Your task to perform on an android device: toggle airplane mode Image 0: 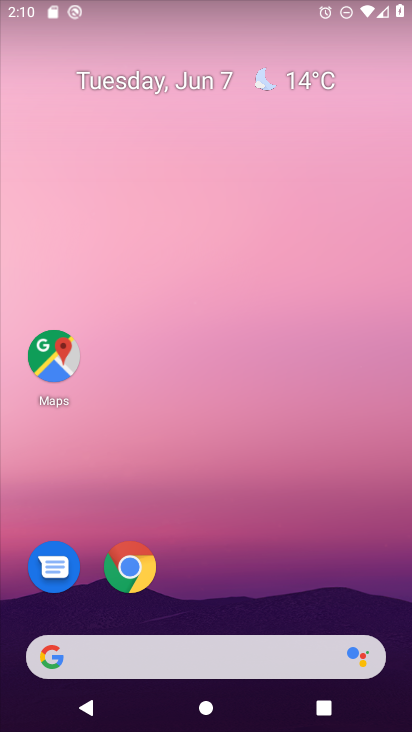
Step 0: drag from (320, 556) to (378, 31)
Your task to perform on an android device: toggle airplane mode Image 1: 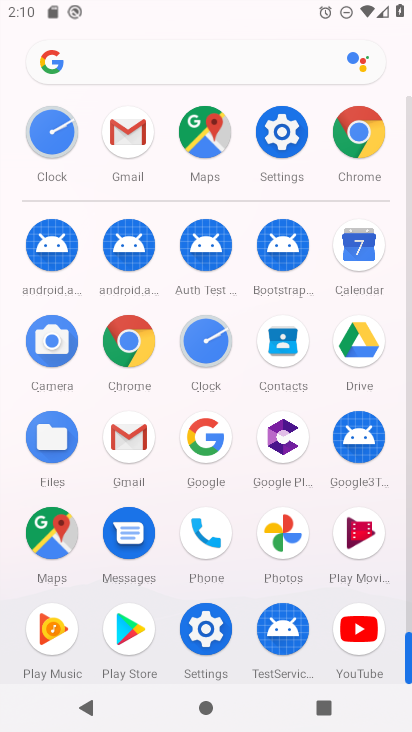
Step 1: click (269, 124)
Your task to perform on an android device: toggle airplane mode Image 2: 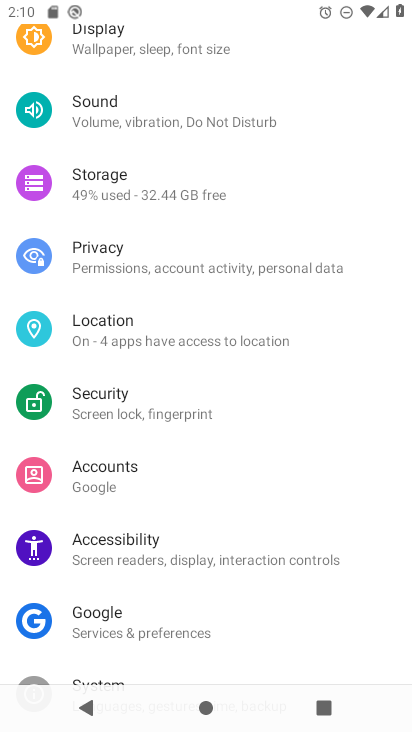
Step 2: drag from (277, 178) to (286, 682)
Your task to perform on an android device: toggle airplane mode Image 3: 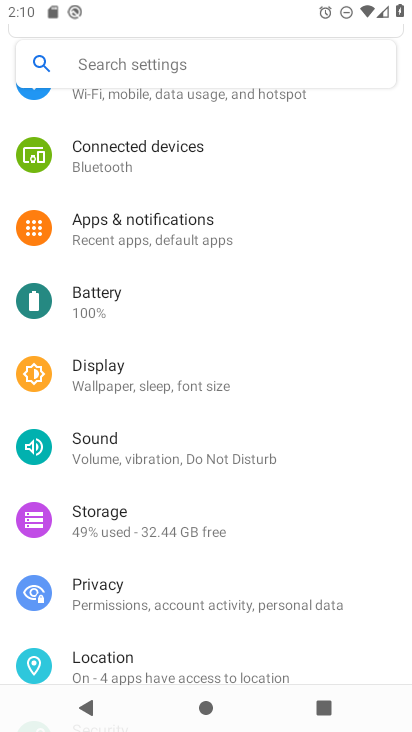
Step 3: drag from (252, 248) to (206, 654)
Your task to perform on an android device: toggle airplane mode Image 4: 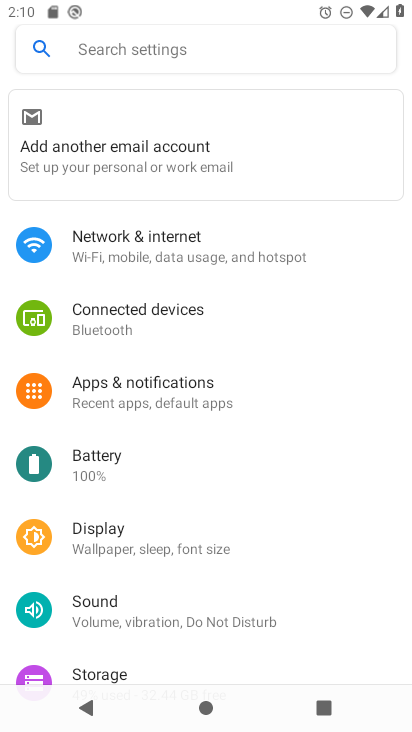
Step 4: drag from (300, 212) to (246, 466)
Your task to perform on an android device: toggle airplane mode Image 5: 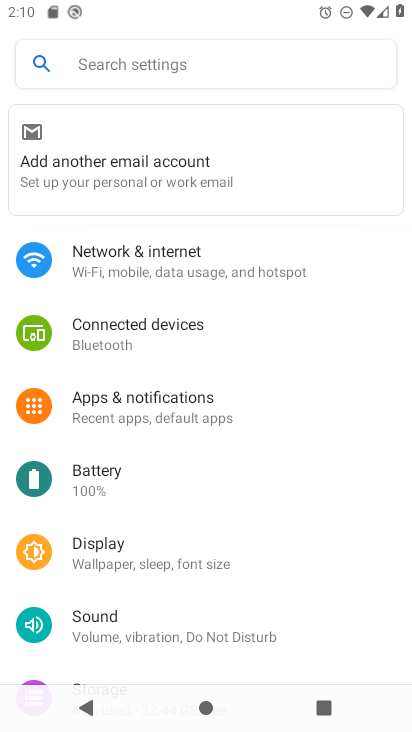
Step 5: click (154, 257)
Your task to perform on an android device: toggle airplane mode Image 6: 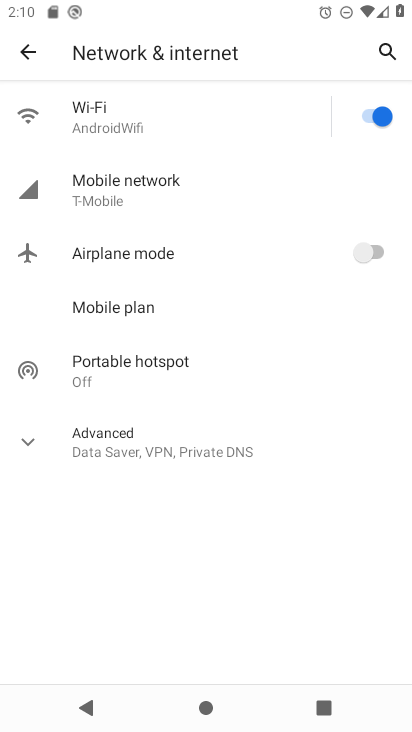
Step 6: click (153, 263)
Your task to perform on an android device: toggle airplane mode Image 7: 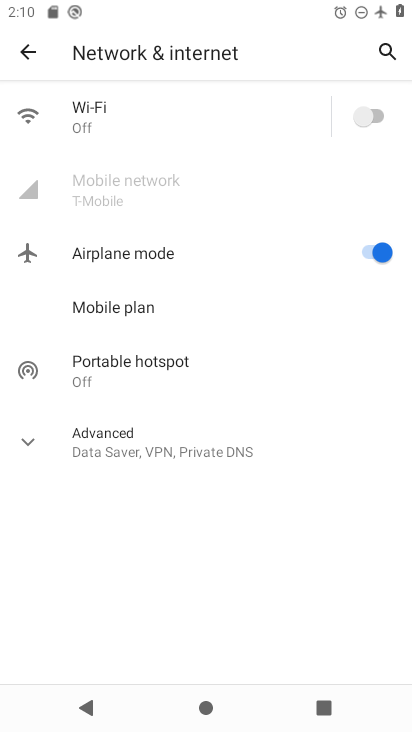
Step 7: task complete